Your task to perform on an android device: Open settings on Google Maps Image 0: 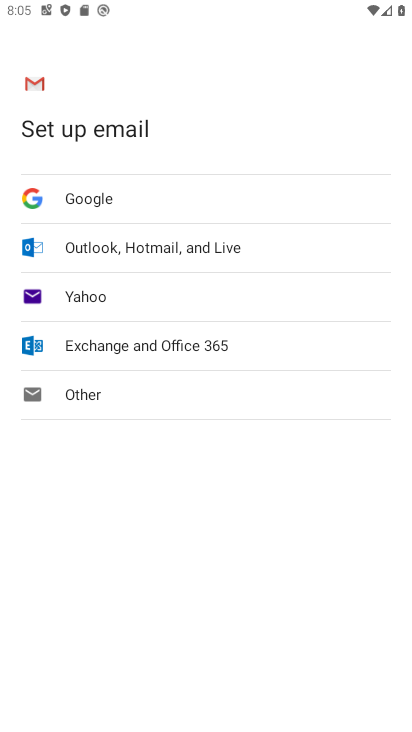
Step 0: press home button
Your task to perform on an android device: Open settings on Google Maps Image 1: 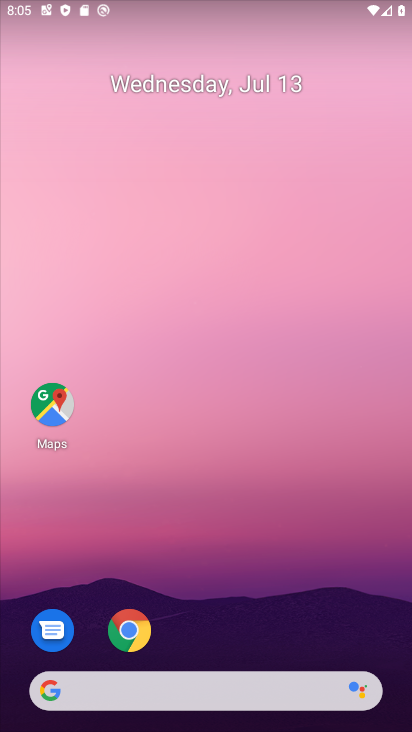
Step 1: drag from (340, 619) to (358, 85)
Your task to perform on an android device: Open settings on Google Maps Image 2: 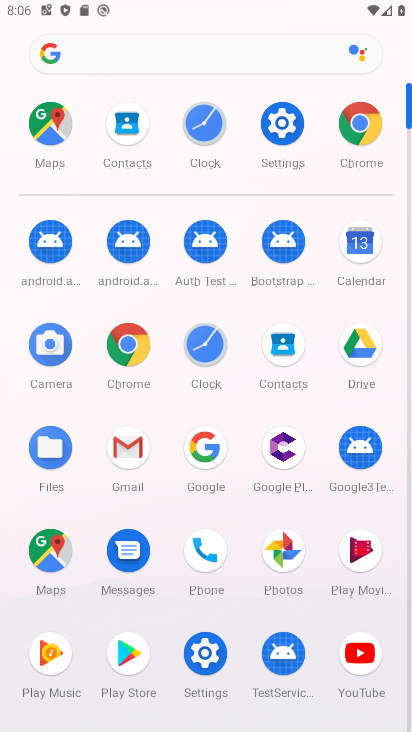
Step 2: click (55, 543)
Your task to perform on an android device: Open settings on Google Maps Image 3: 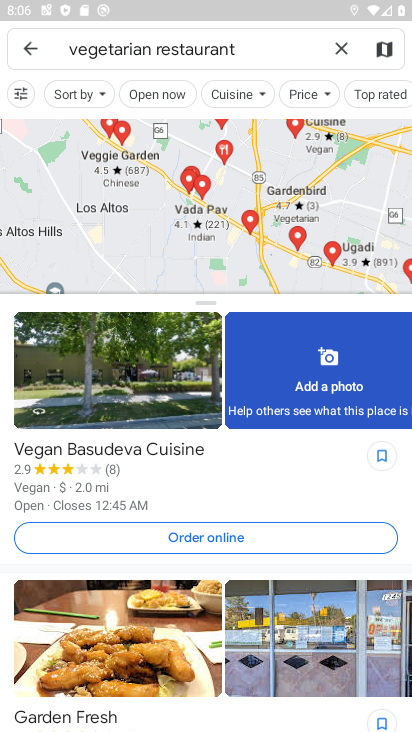
Step 3: press back button
Your task to perform on an android device: Open settings on Google Maps Image 4: 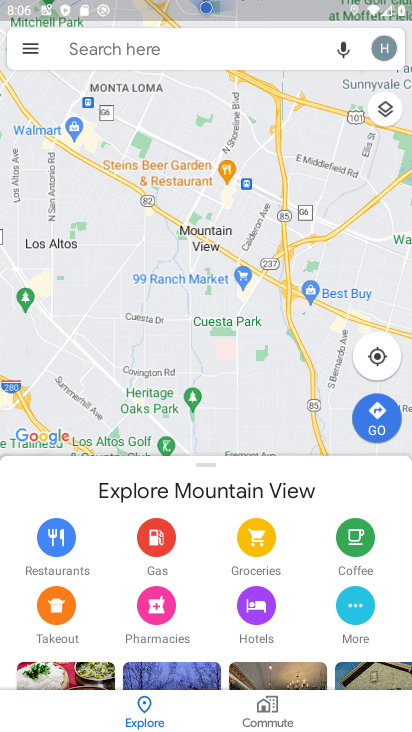
Step 4: click (26, 46)
Your task to perform on an android device: Open settings on Google Maps Image 5: 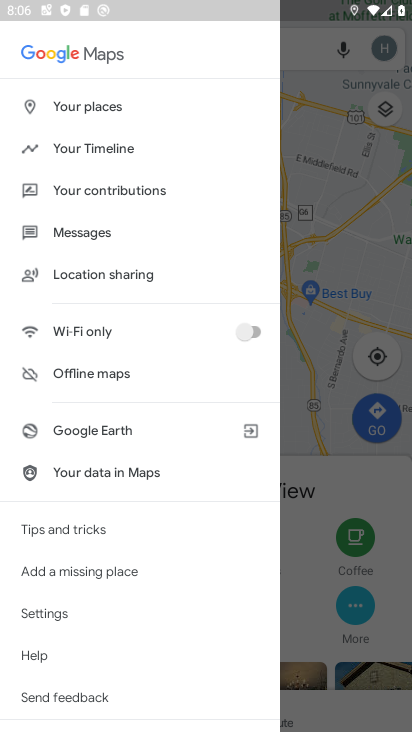
Step 5: click (92, 619)
Your task to perform on an android device: Open settings on Google Maps Image 6: 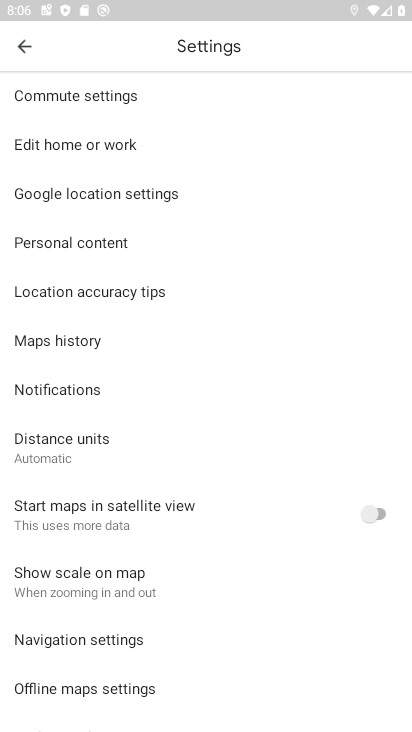
Step 6: task complete